Your task to perform on an android device: turn pop-ups off in chrome Image 0: 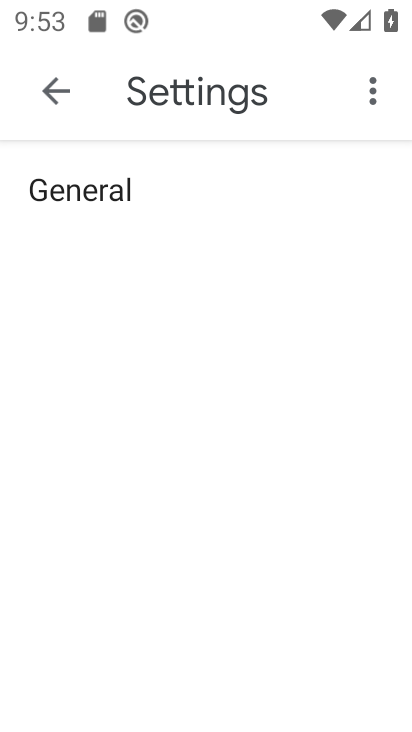
Step 0: press back button
Your task to perform on an android device: turn pop-ups off in chrome Image 1: 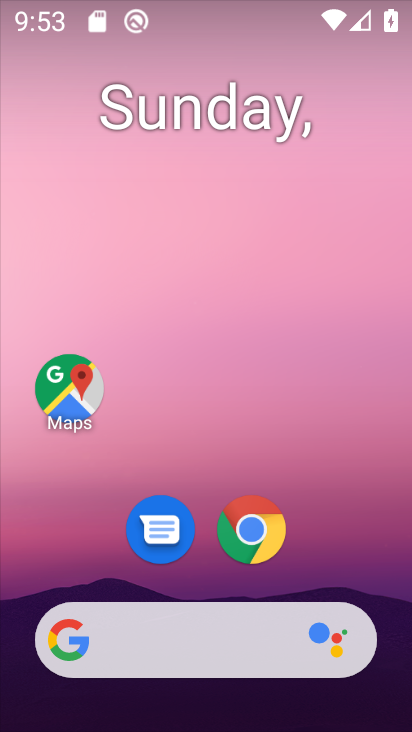
Step 1: click (260, 539)
Your task to perform on an android device: turn pop-ups off in chrome Image 2: 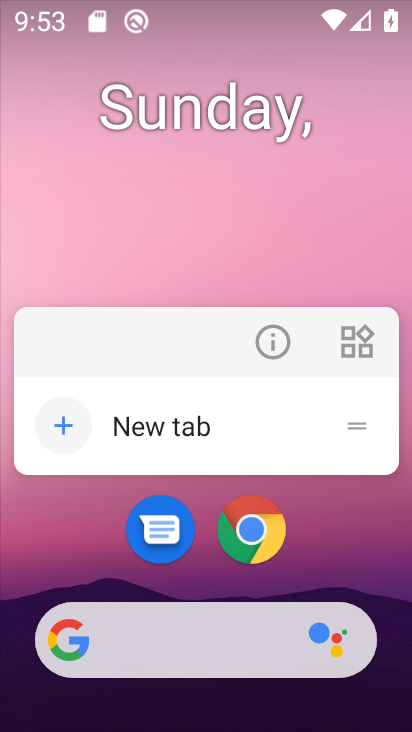
Step 2: click (266, 521)
Your task to perform on an android device: turn pop-ups off in chrome Image 3: 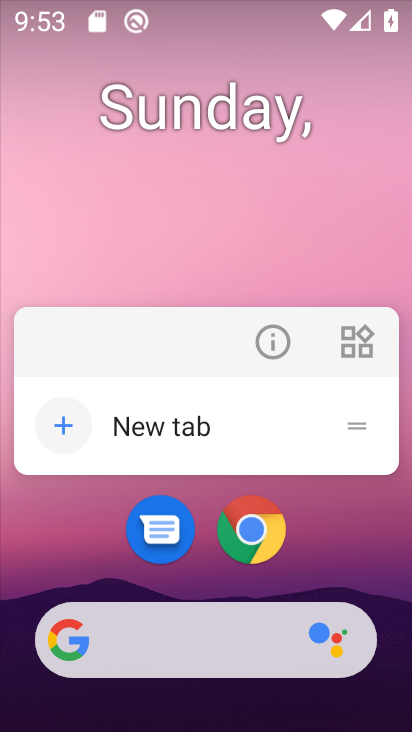
Step 3: click (279, 522)
Your task to perform on an android device: turn pop-ups off in chrome Image 4: 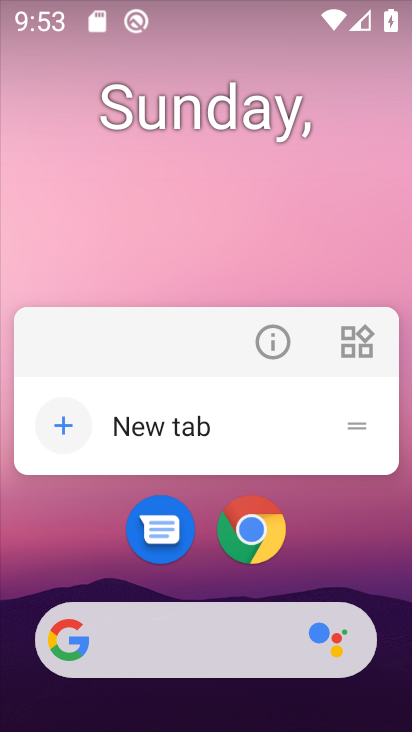
Step 4: click (268, 541)
Your task to perform on an android device: turn pop-ups off in chrome Image 5: 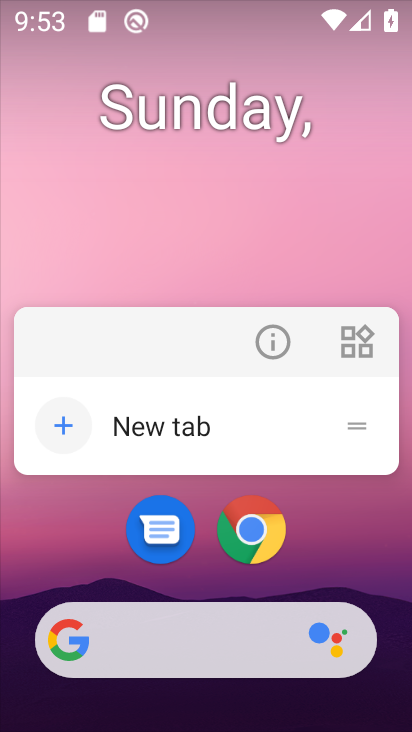
Step 5: click (246, 518)
Your task to perform on an android device: turn pop-ups off in chrome Image 6: 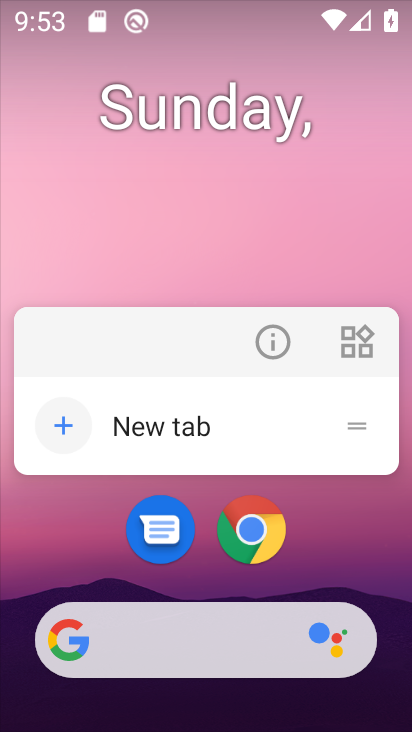
Step 6: click (267, 552)
Your task to perform on an android device: turn pop-ups off in chrome Image 7: 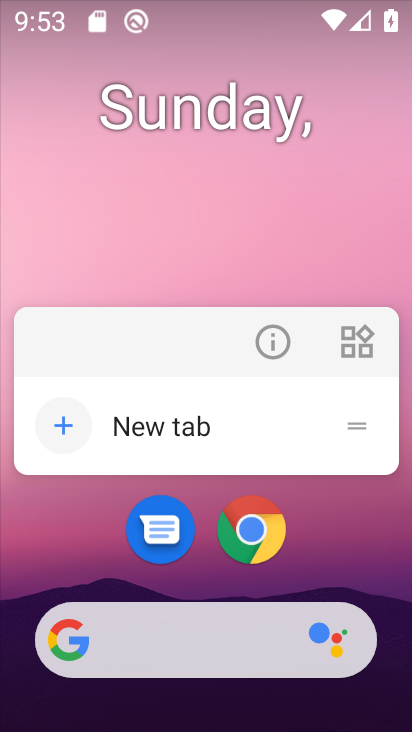
Step 7: click (279, 540)
Your task to perform on an android device: turn pop-ups off in chrome Image 8: 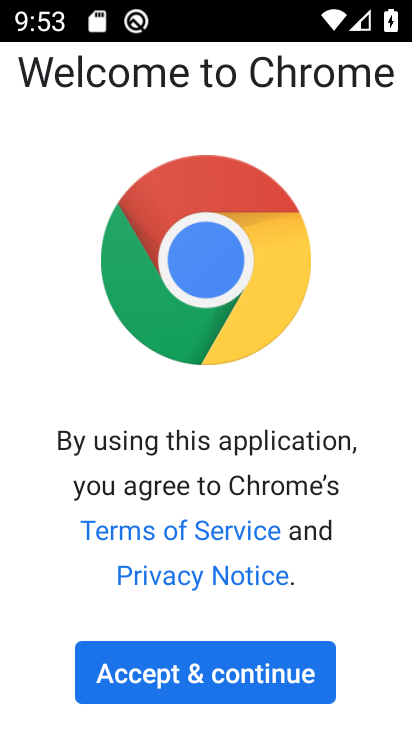
Step 8: click (269, 708)
Your task to perform on an android device: turn pop-ups off in chrome Image 9: 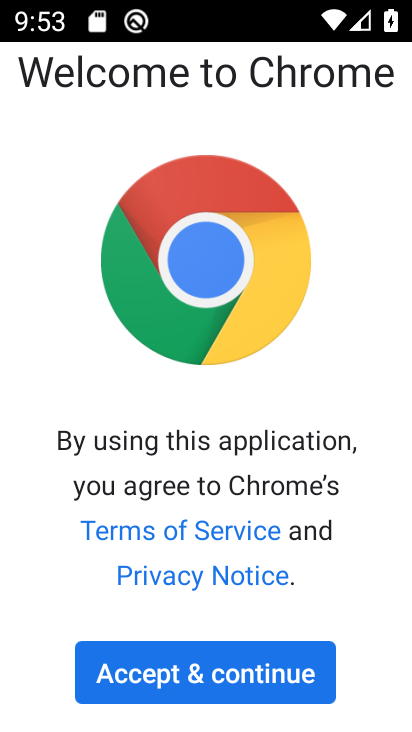
Step 9: click (266, 686)
Your task to perform on an android device: turn pop-ups off in chrome Image 10: 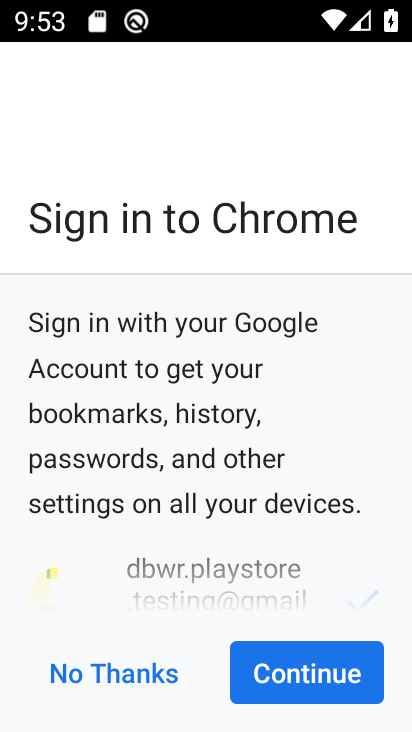
Step 10: click (318, 688)
Your task to perform on an android device: turn pop-ups off in chrome Image 11: 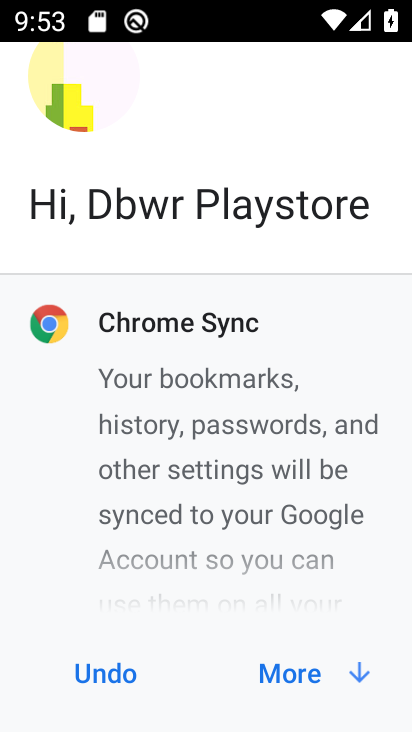
Step 11: click (308, 686)
Your task to perform on an android device: turn pop-ups off in chrome Image 12: 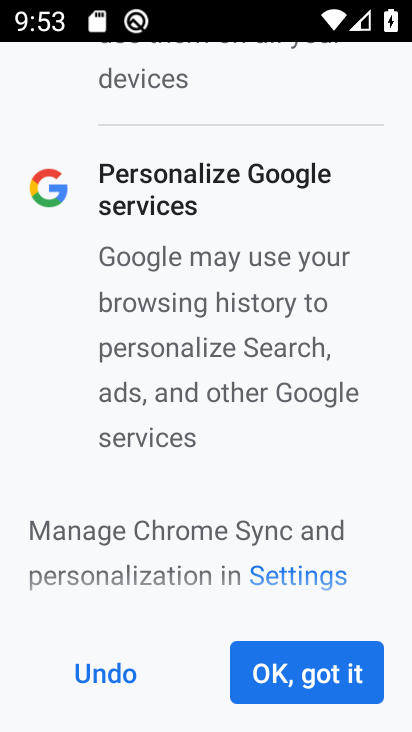
Step 12: click (307, 688)
Your task to perform on an android device: turn pop-ups off in chrome Image 13: 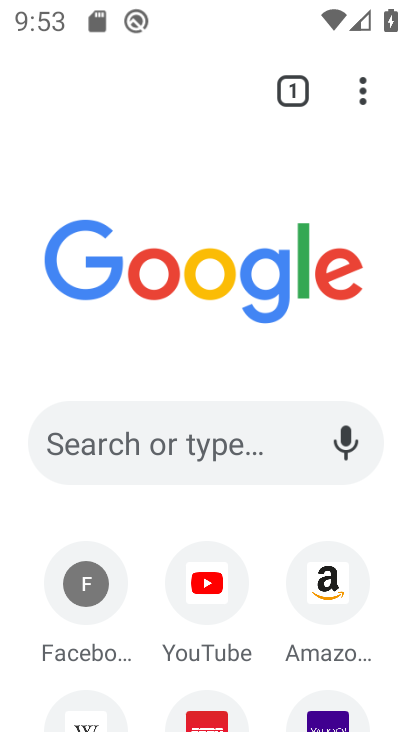
Step 13: click (375, 93)
Your task to perform on an android device: turn pop-ups off in chrome Image 14: 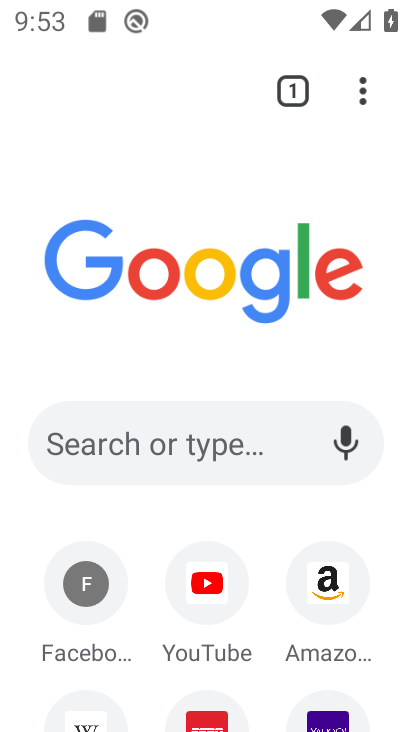
Step 14: drag from (363, 109) to (275, 562)
Your task to perform on an android device: turn pop-ups off in chrome Image 15: 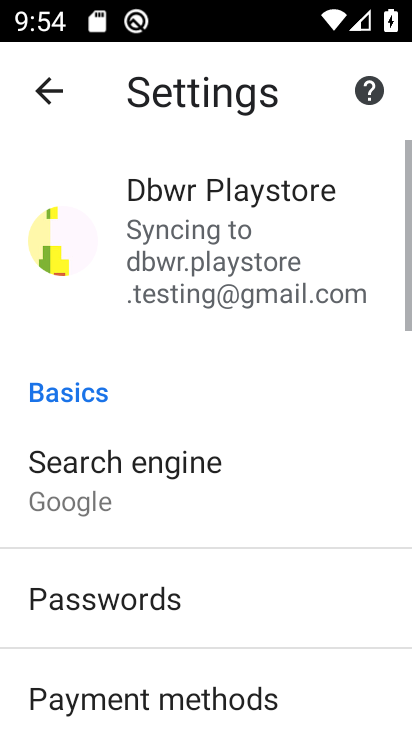
Step 15: drag from (229, 644) to (350, 135)
Your task to perform on an android device: turn pop-ups off in chrome Image 16: 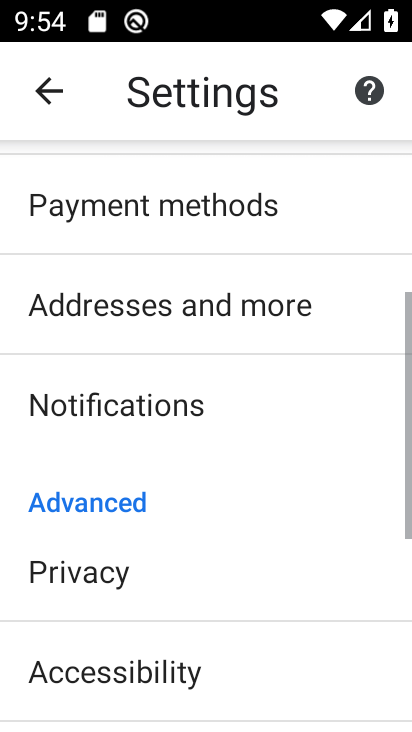
Step 16: drag from (239, 601) to (284, 298)
Your task to perform on an android device: turn pop-ups off in chrome Image 17: 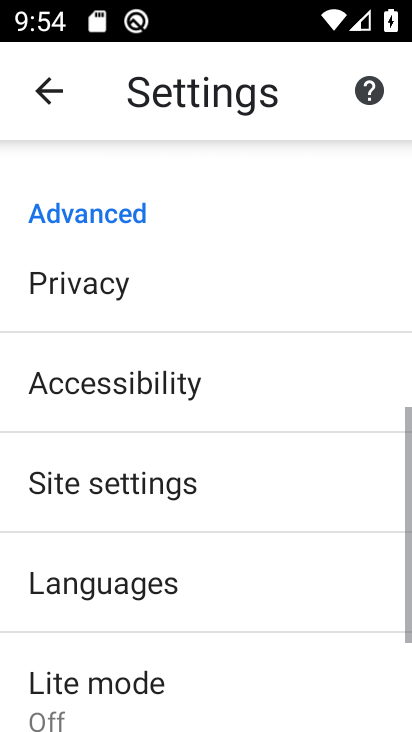
Step 17: click (202, 491)
Your task to perform on an android device: turn pop-ups off in chrome Image 18: 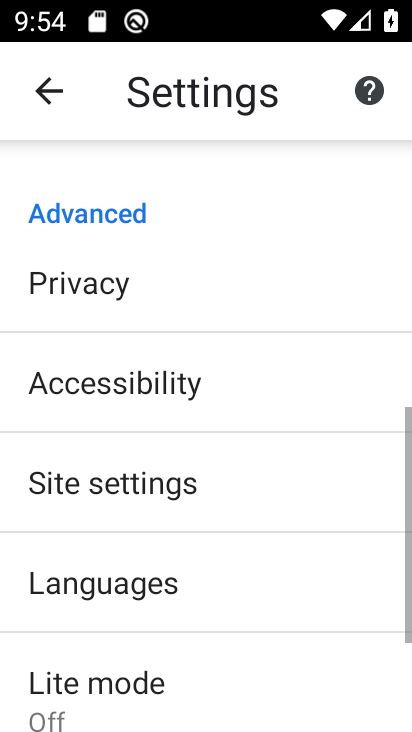
Step 18: click (166, 485)
Your task to perform on an android device: turn pop-ups off in chrome Image 19: 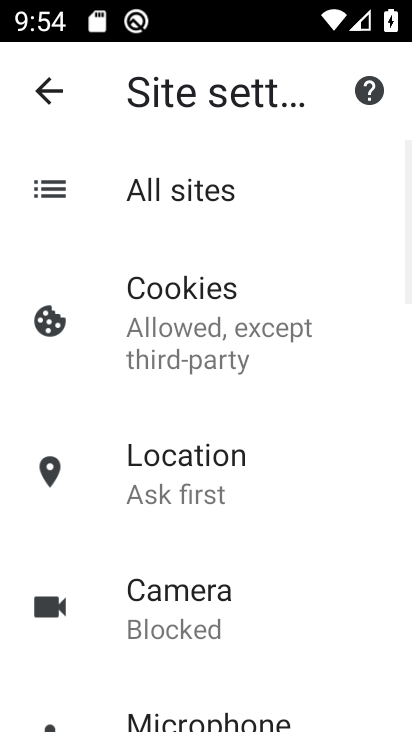
Step 19: drag from (213, 664) to (337, 167)
Your task to perform on an android device: turn pop-ups off in chrome Image 20: 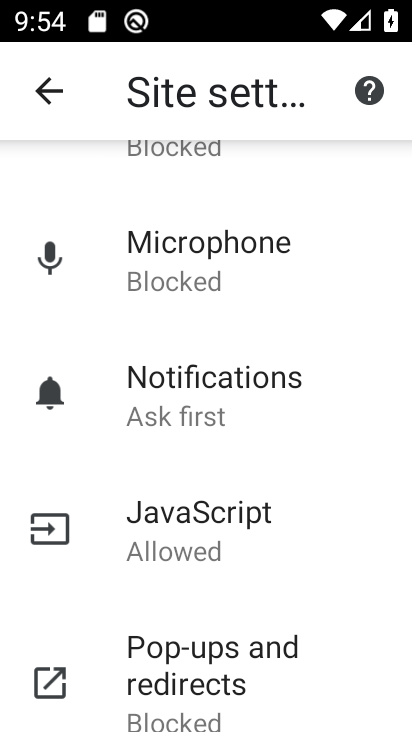
Step 20: click (228, 648)
Your task to perform on an android device: turn pop-ups off in chrome Image 21: 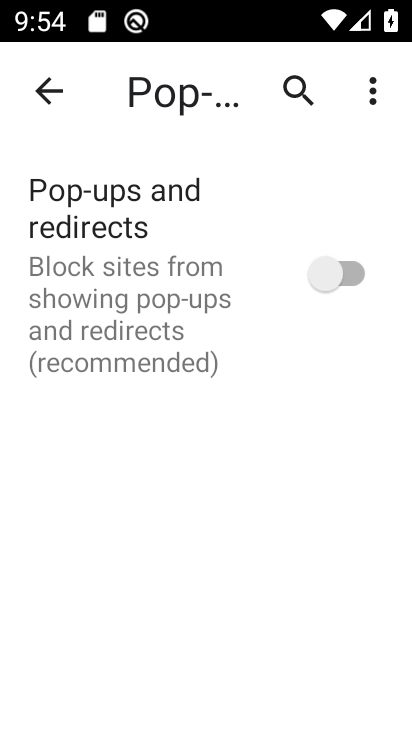
Step 21: task complete